Your task to perform on an android device: Open Google Image 0: 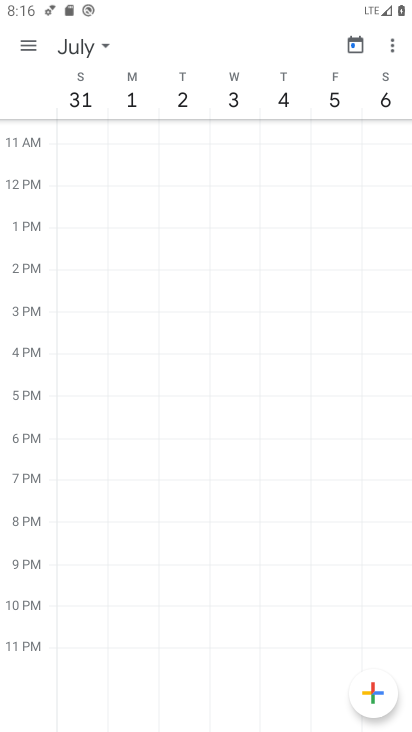
Step 0: press home button
Your task to perform on an android device: Open Google Image 1: 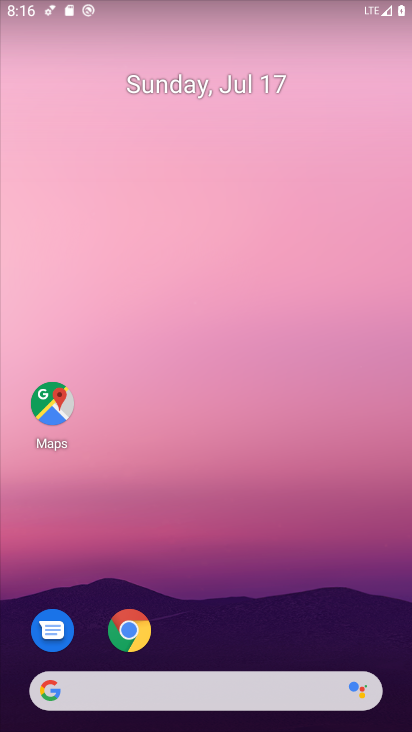
Step 1: click (38, 691)
Your task to perform on an android device: Open Google Image 2: 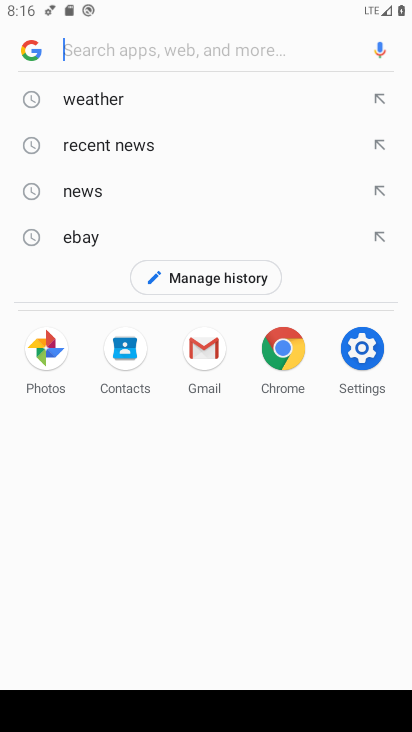
Step 2: click (30, 52)
Your task to perform on an android device: Open Google Image 3: 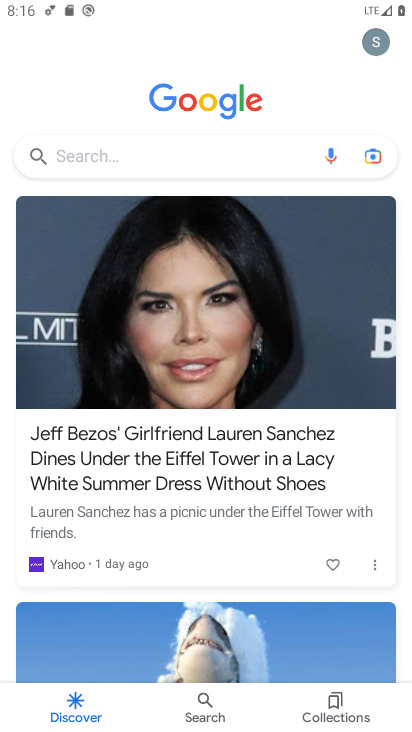
Step 3: task complete